Your task to perform on an android device: toggle airplane mode Image 0: 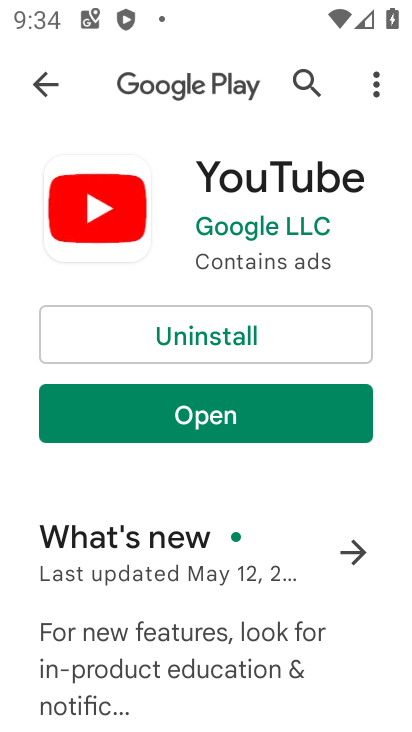
Step 0: press home button
Your task to perform on an android device: toggle airplane mode Image 1: 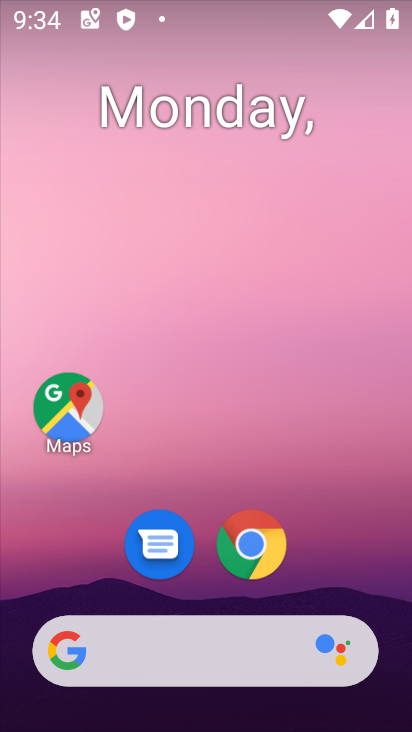
Step 1: drag from (275, 445) to (201, 57)
Your task to perform on an android device: toggle airplane mode Image 2: 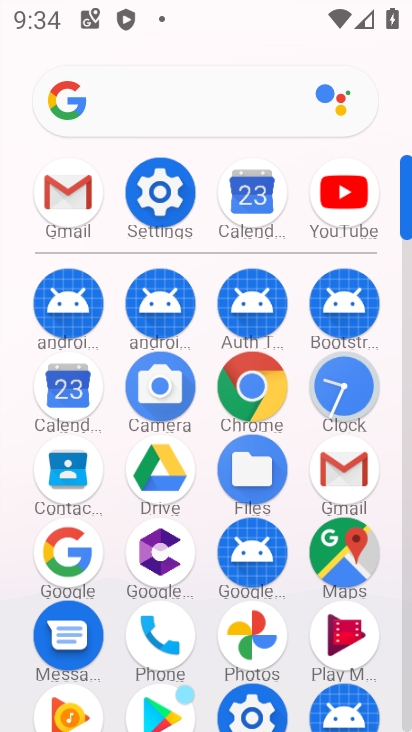
Step 2: click (138, 175)
Your task to perform on an android device: toggle airplane mode Image 3: 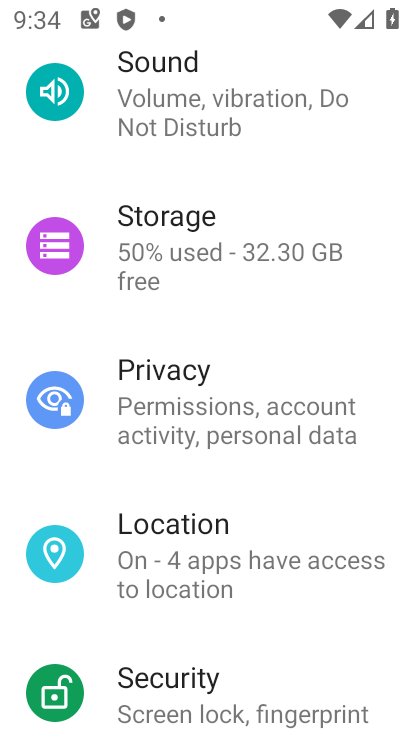
Step 3: drag from (248, 188) to (228, 718)
Your task to perform on an android device: toggle airplane mode Image 4: 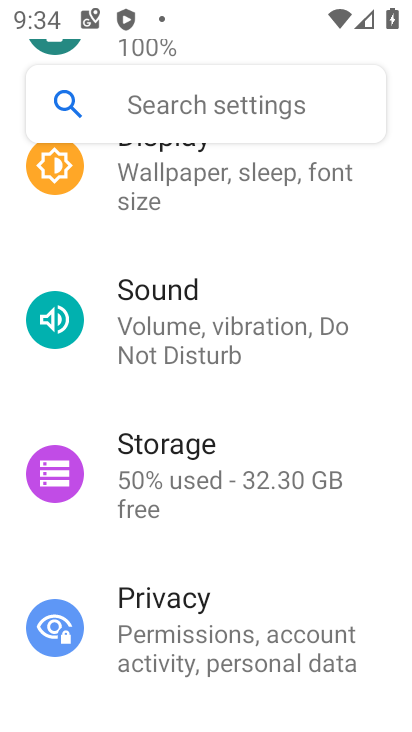
Step 4: drag from (210, 213) to (263, 618)
Your task to perform on an android device: toggle airplane mode Image 5: 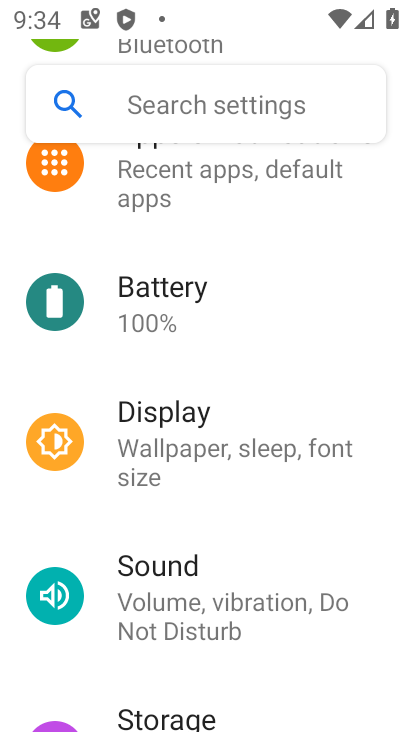
Step 5: drag from (219, 233) to (248, 681)
Your task to perform on an android device: toggle airplane mode Image 6: 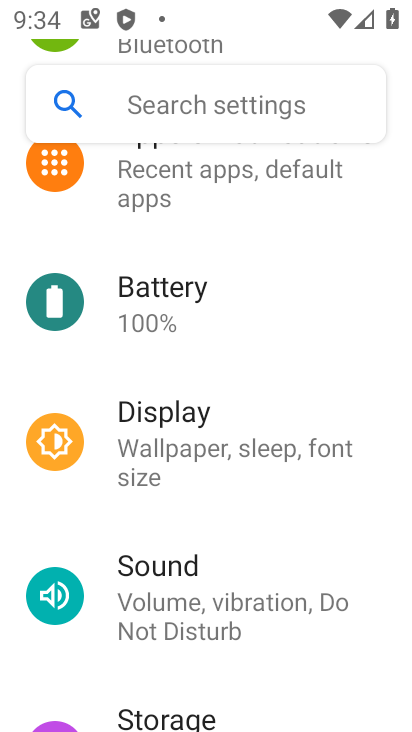
Step 6: drag from (197, 241) to (354, 711)
Your task to perform on an android device: toggle airplane mode Image 7: 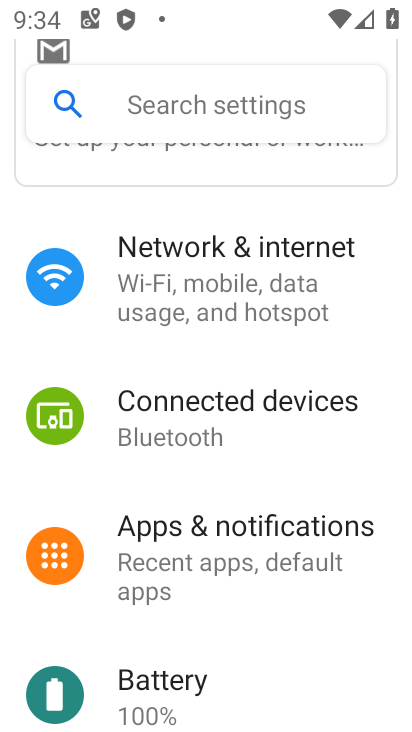
Step 7: click (215, 272)
Your task to perform on an android device: toggle airplane mode Image 8: 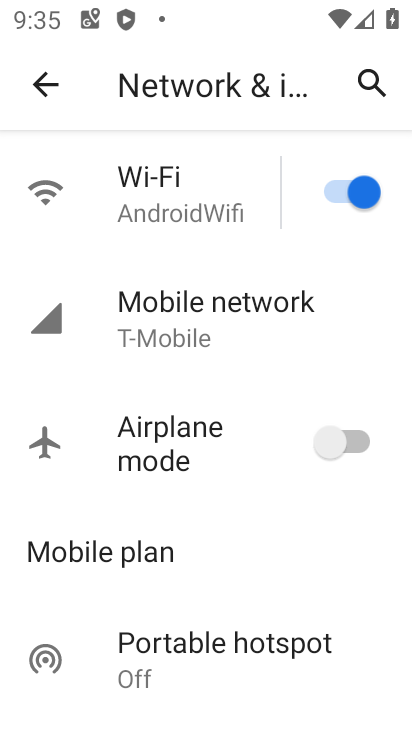
Step 8: click (324, 442)
Your task to perform on an android device: toggle airplane mode Image 9: 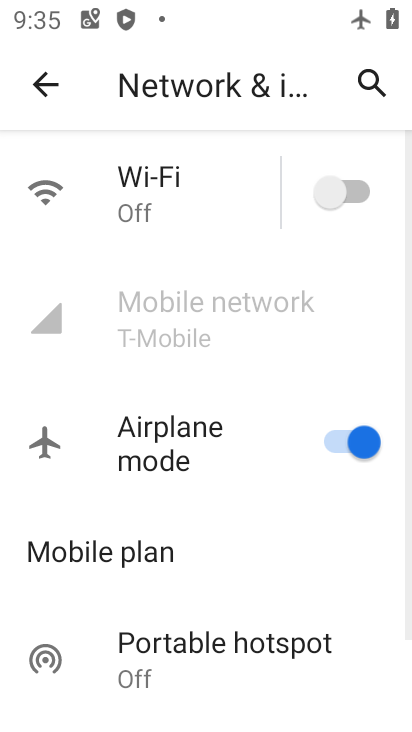
Step 9: task complete